Your task to perform on an android device: Go to notification settings Image 0: 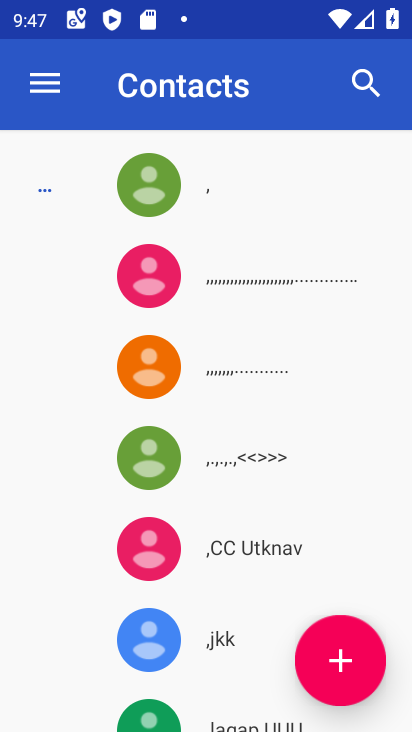
Step 0: press back button
Your task to perform on an android device: Go to notification settings Image 1: 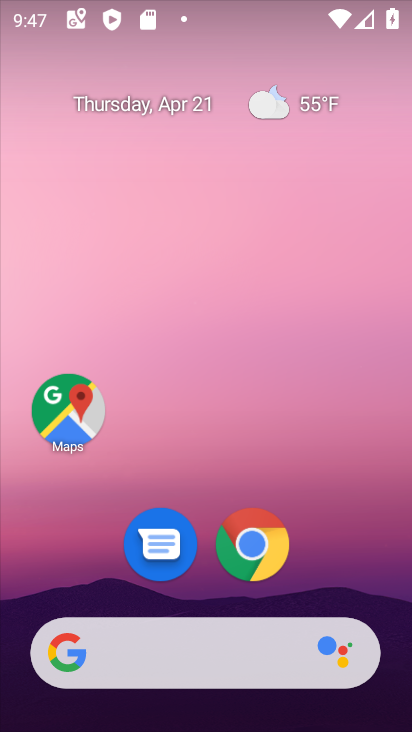
Step 1: drag from (330, 309) to (319, 15)
Your task to perform on an android device: Go to notification settings Image 2: 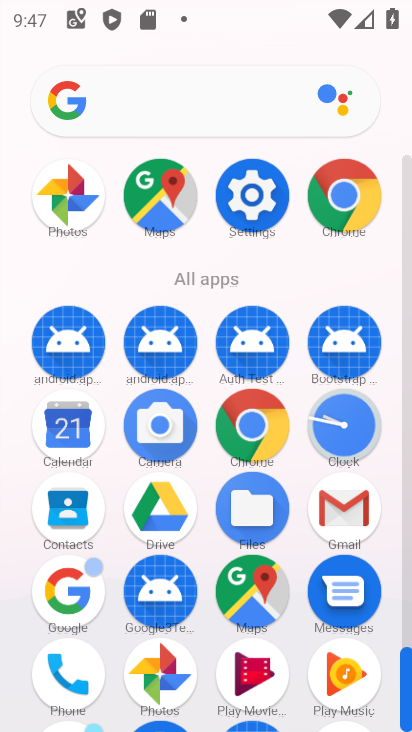
Step 2: click (252, 190)
Your task to perform on an android device: Go to notification settings Image 3: 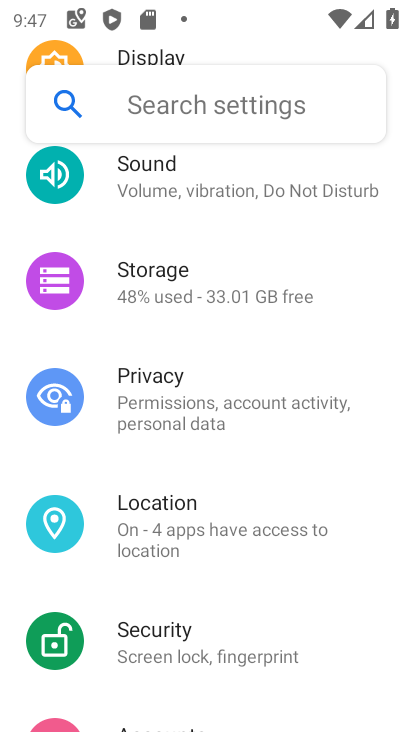
Step 3: drag from (279, 170) to (273, 585)
Your task to perform on an android device: Go to notification settings Image 4: 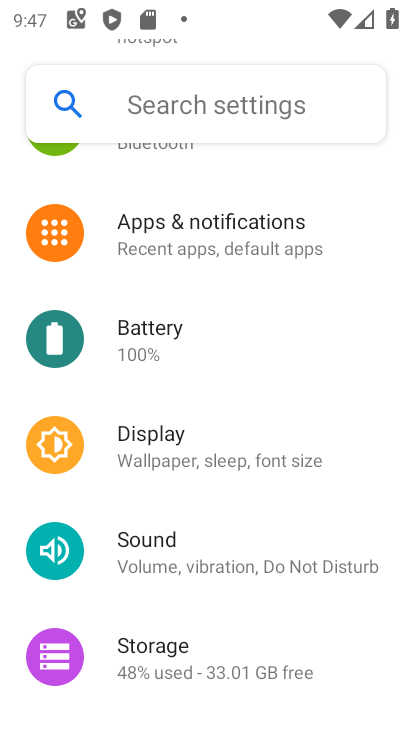
Step 4: click (249, 233)
Your task to perform on an android device: Go to notification settings Image 5: 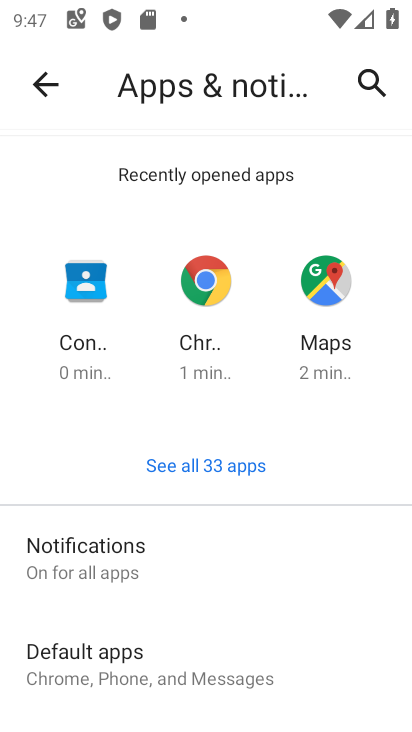
Step 5: drag from (253, 556) to (255, 271)
Your task to perform on an android device: Go to notification settings Image 6: 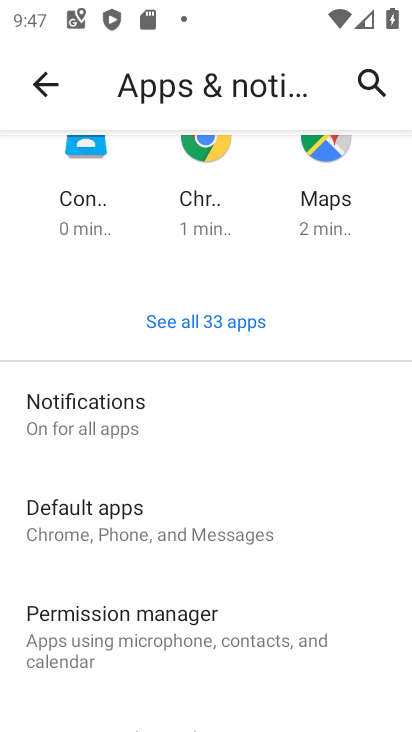
Step 6: drag from (256, 542) to (268, 201)
Your task to perform on an android device: Go to notification settings Image 7: 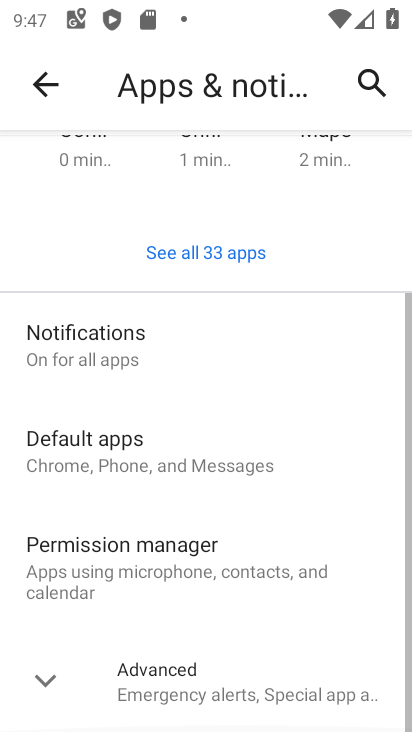
Step 7: click (197, 332)
Your task to perform on an android device: Go to notification settings Image 8: 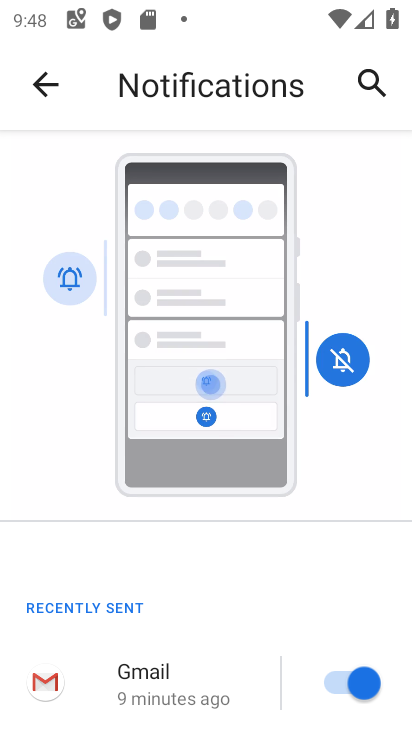
Step 8: drag from (188, 617) to (205, 207)
Your task to perform on an android device: Go to notification settings Image 9: 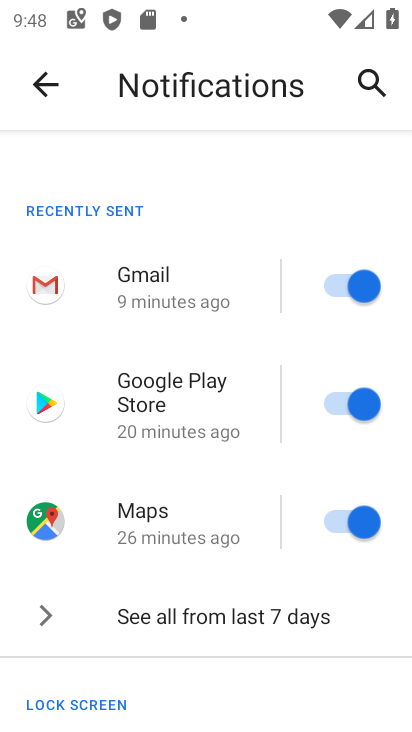
Step 9: drag from (181, 542) to (176, 306)
Your task to perform on an android device: Go to notification settings Image 10: 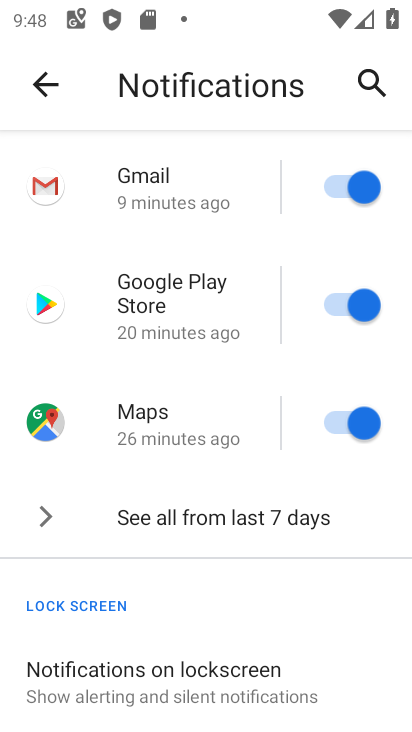
Step 10: drag from (191, 636) to (166, 199)
Your task to perform on an android device: Go to notification settings Image 11: 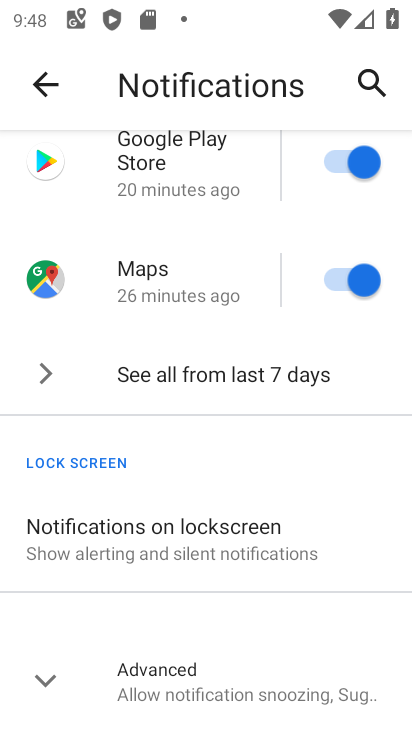
Step 11: click (45, 680)
Your task to perform on an android device: Go to notification settings Image 12: 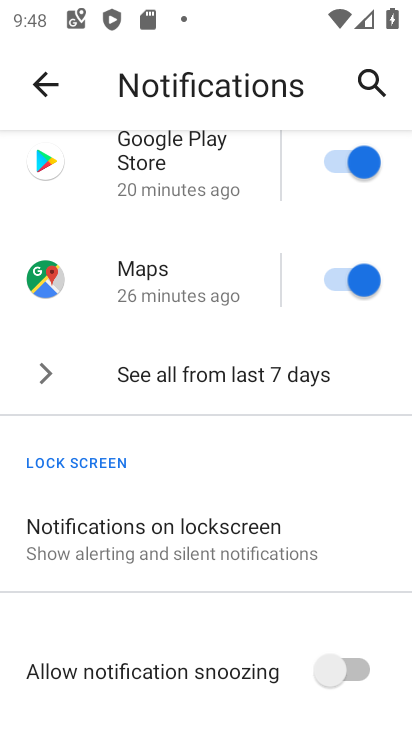
Step 12: task complete